Your task to perform on an android device: turn notification dots off Image 0: 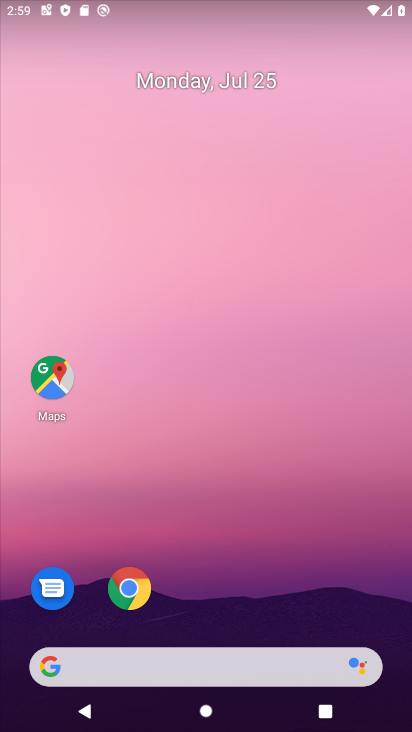
Step 0: drag from (242, 323) to (169, 32)
Your task to perform on an android device: turn notification dots off Image 1: 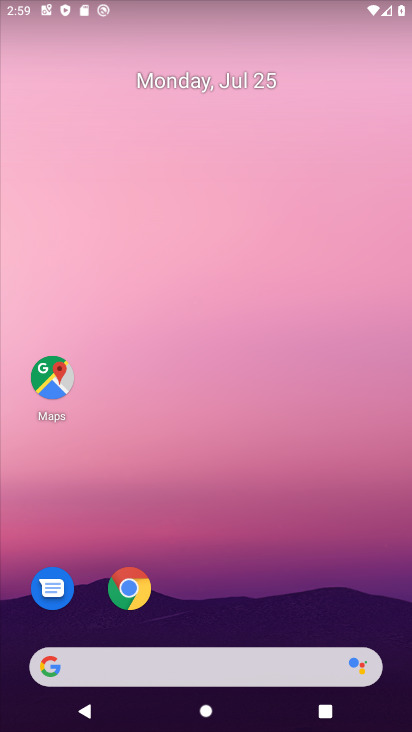
Step 1: drag from (275, 474) to (269, 1)
Your task to perform on an android device: turn notification dots off Image 2: 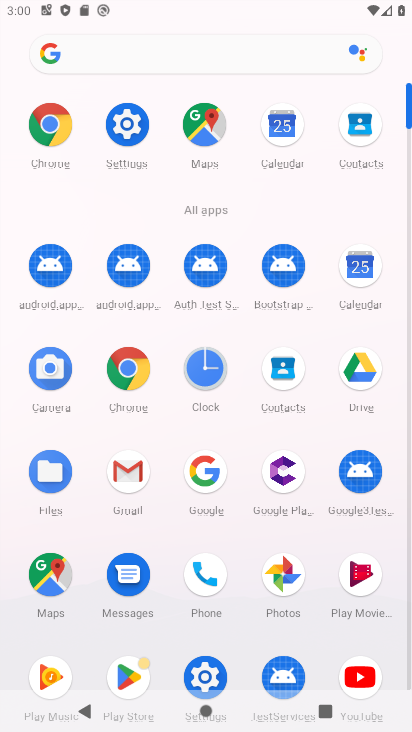
Step 2: click (130, 134)
Your task to perform on an android device: turn notification dots off Image 3: 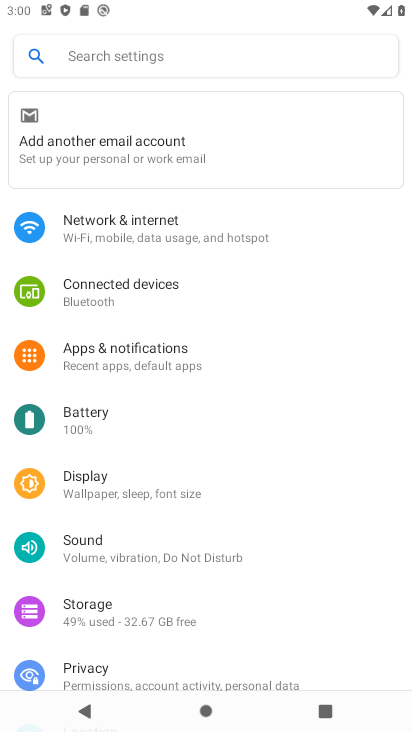
Step 3: click (150, 361)
Your task to perform on an android device: turn notification dots off Image 4: 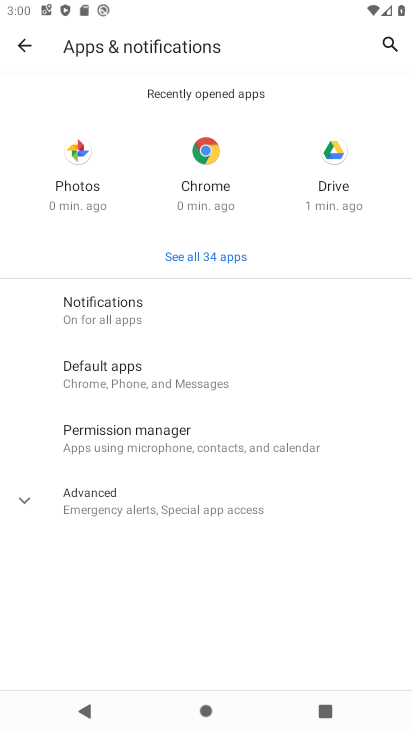
Step 4: click (127, 296)
Your task to perform on an android device: turn notification dots off Image 5: 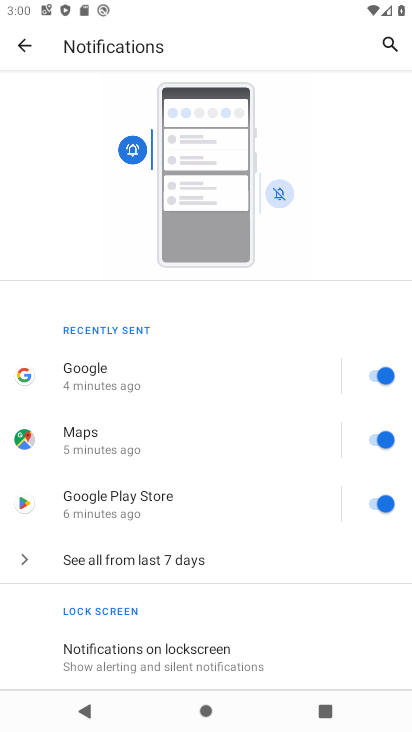
Step 5: drag from (245, 617) to (284, 63)
Your task to perform on an android device: turn notification dots off Image 6: 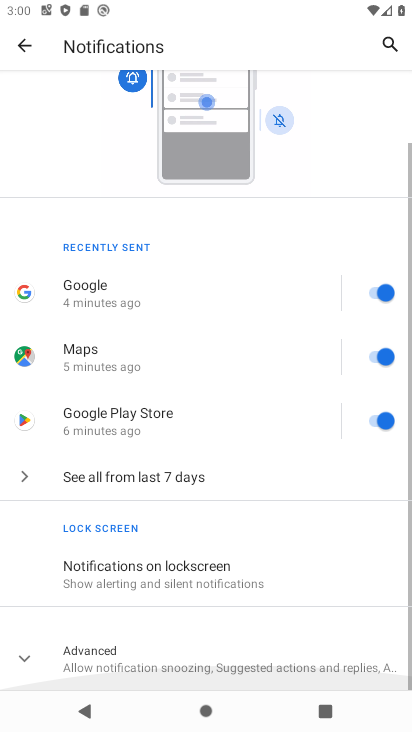
Step 6: drag from (240, 618) to (266, 59)
Your task to perform on an android device: turn notification dots off Image 7: 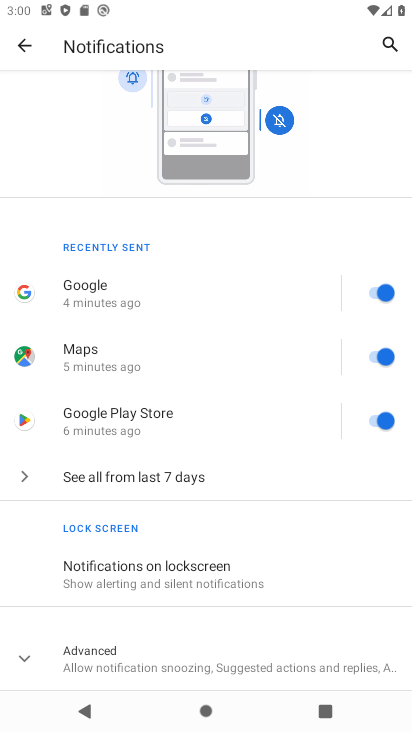
Step 7: click (117, 670)
Your task to perform on an android device: turn notification dots off Image 8: 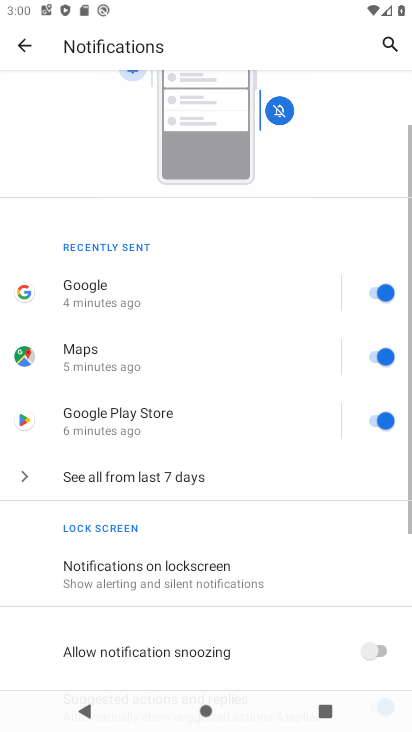
Step 8: drag from (218, 470) to (189, 83)
Your task to perform on an android device: turn notification dots off Image 9: 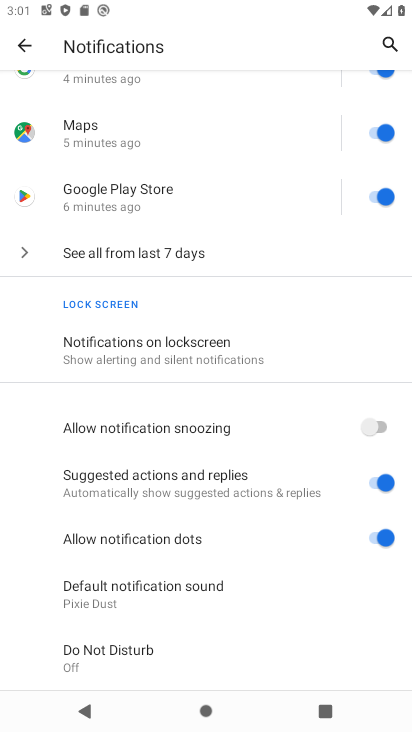
Step 9: click (372, 550)
Your task to perform on an android device: turn notification dots off Image 10: 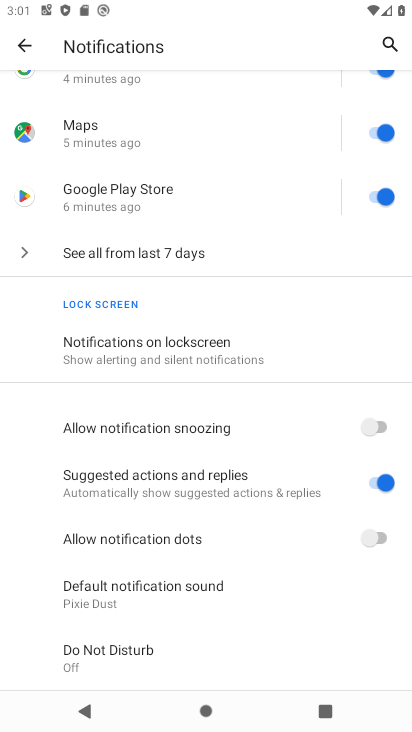
Step 10: task complete